Your task to perform on an android device: check google app version Image 0: 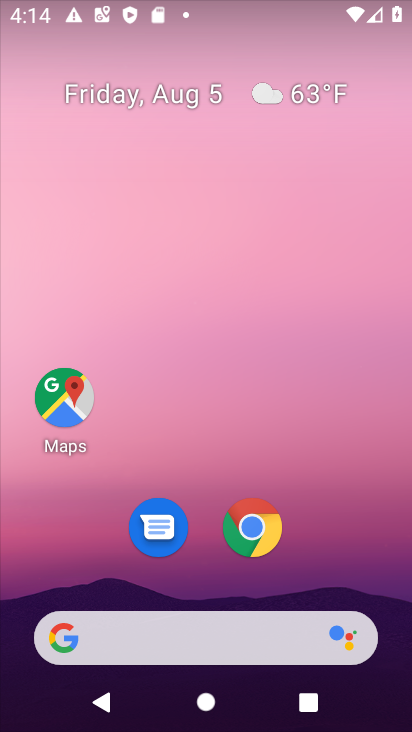
Step 0: drag from (222, 577) to (220, 53)
Your task to perform on an android device: check google app version Image 1: 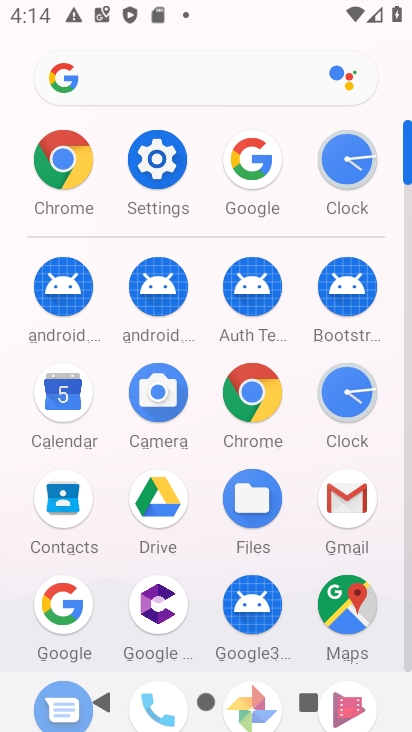
Step 1: click (253, 178)
Your task to perform on an android device: check google app version Image 2: 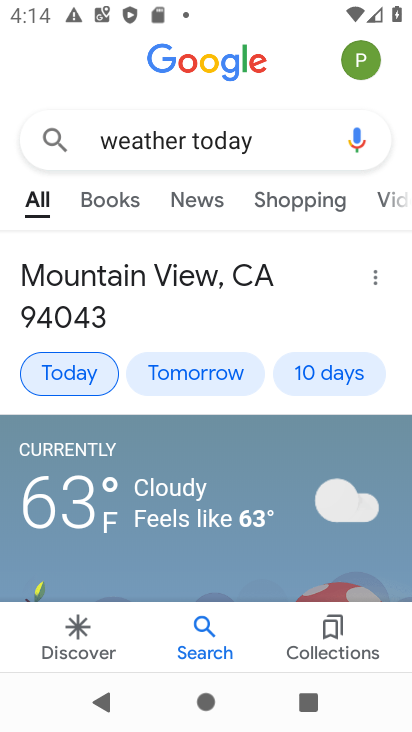
Step 2: click (363, 52)
Your task to perform on an android device: check google app version Image 3: 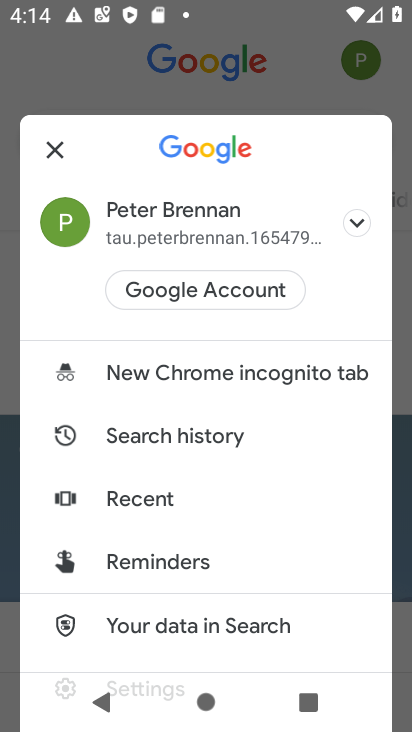
Step 3: drag from (157, 601) to (154, 316)
Your task to perform on an android device: check google app version Image 4: 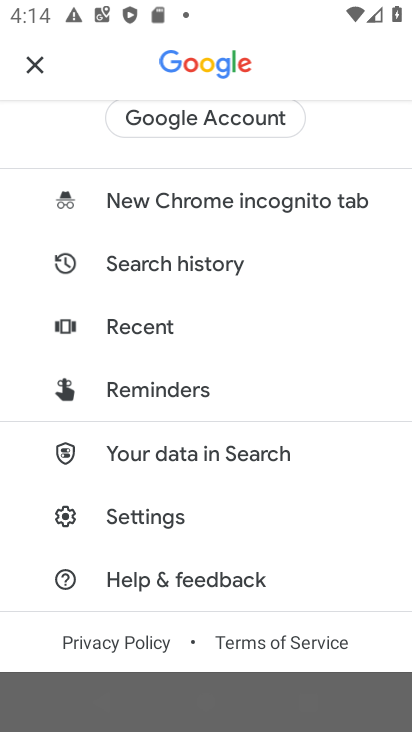
Step 4: click (138, 517)
Your task to perform on an android device: check google app version Image 5: 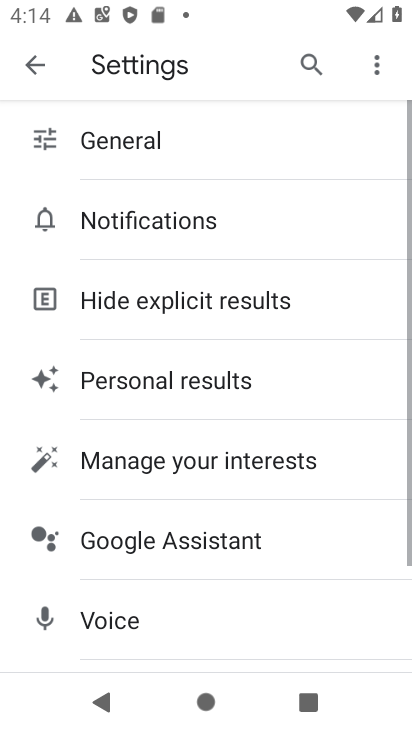
Step 5: drag from (125, 592) to (127, 189)
Your task to perform on an android device: check google app version Image 6: 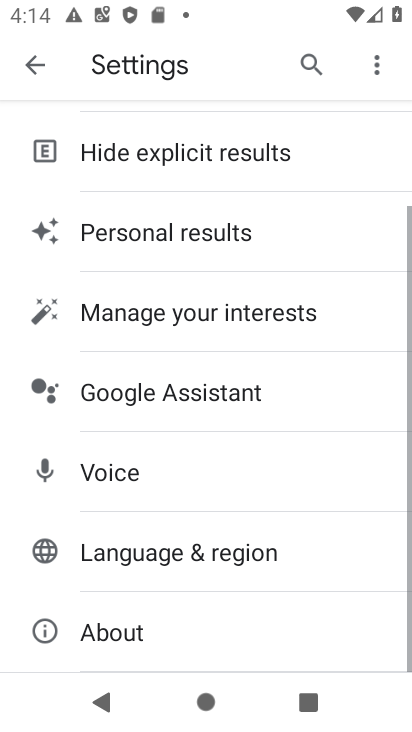
Step 6: click (111, 630)
Your task to perform on an android device: check google app version Image 7: 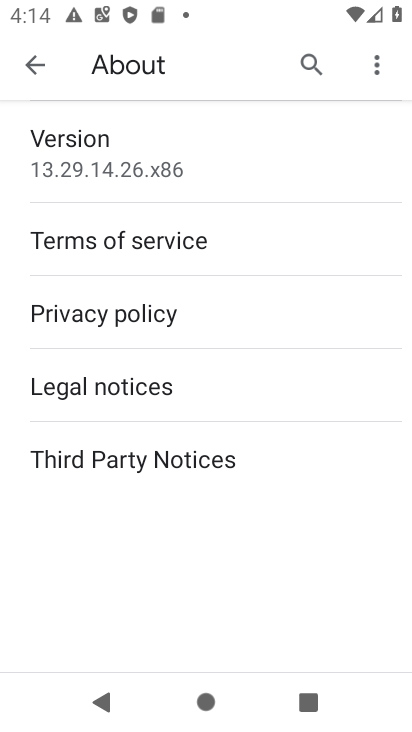
Step 7: click (93, 168)
Your task to perform on an android device: check google app version Image 8: 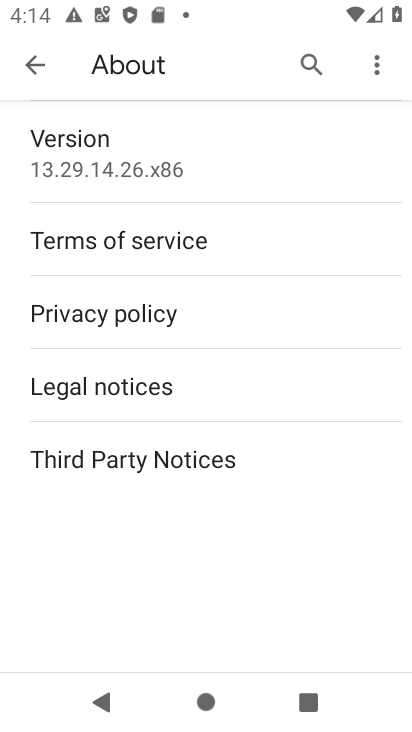
Step 8: task complete